Your task to perform on an android device: What's the weather today? Image 0: 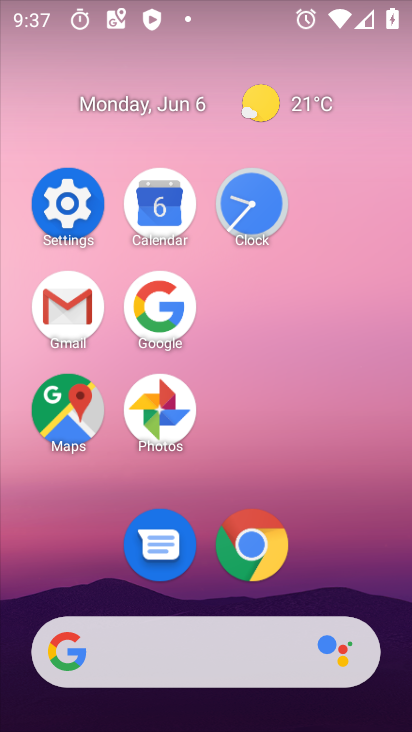
Step 0: click (185, 304)
Your task to perform on an android device: What's the weather today? Image 1: 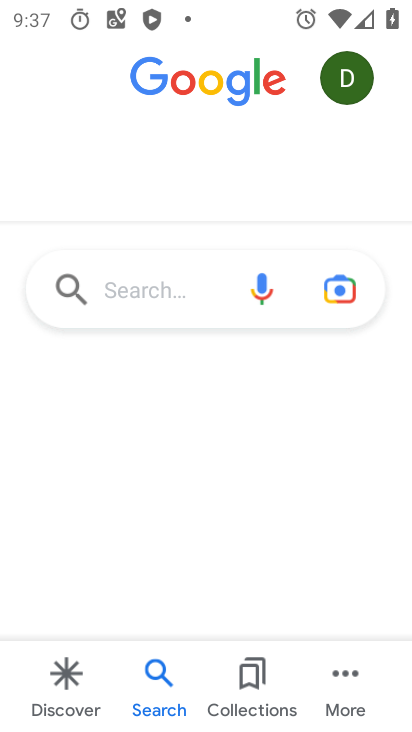
Step 1: click (175, 302)
Your task to perform on an android device: What's the weather today? Image 2: 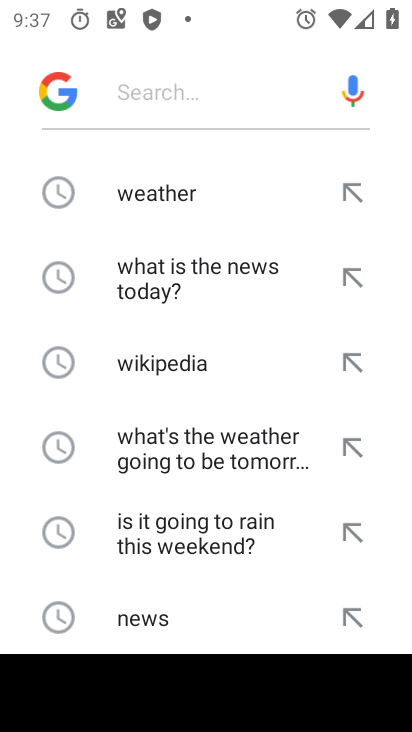
Step 2: click (189, 200)
Your task to perform on an android device: What's the weather today? Image 3: 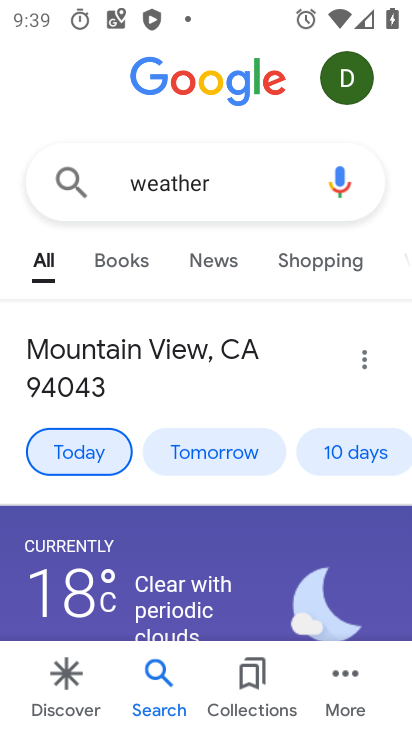
Step 3: task complete